Your task to perform on an android device: toggle notification dots Image 0: 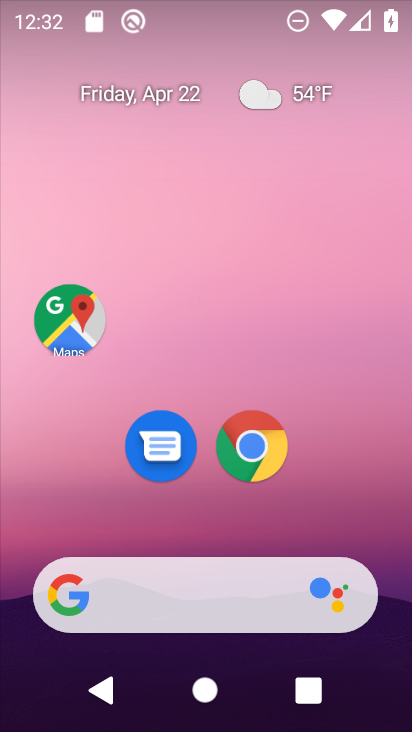
Step 0: drag from (382, 528) to (343, 168)
Your task to perform on an android device: toggle notification dots Image 1: 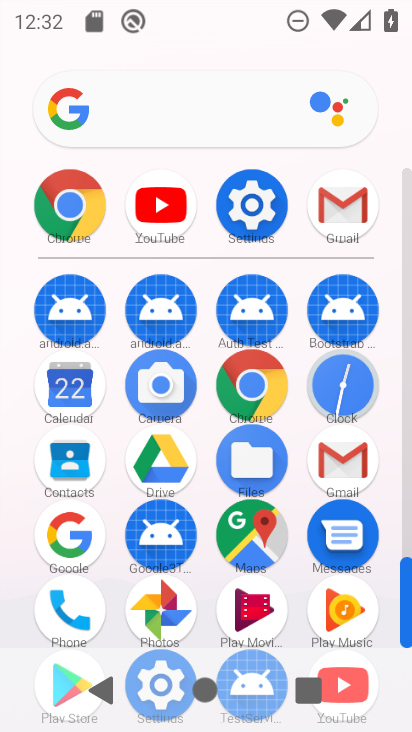
Step 1: click (258, 203)
Your task to perform on an android device: toggle notification dots Image 2: 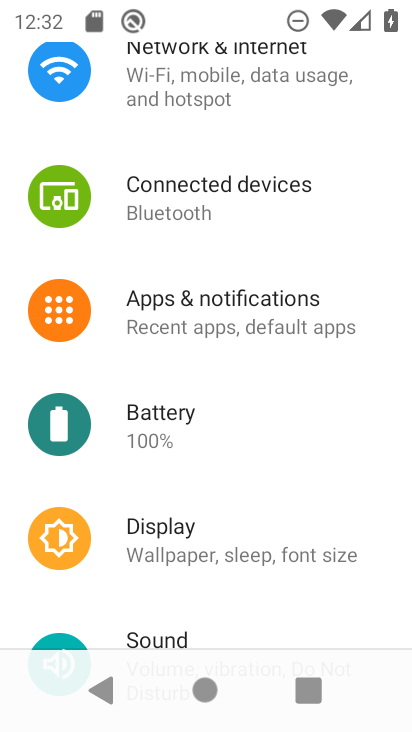
Step 2: click (278, 322)
Your task to perform on an android device: toggle notification dots Image 3: 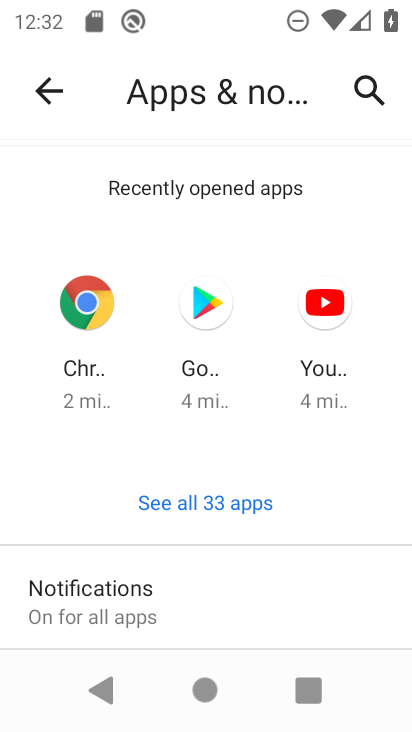
Step 3: drag from (295, 600) to (261, 285)
Your task to perform on an android device: toggle notification dots Image 4: 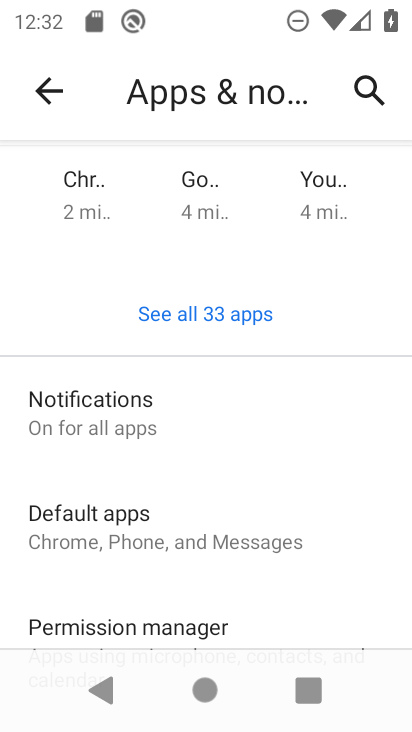
Step 4: click (268, 416)
Your task to perform on an android device: toggle notification dots Image 5: 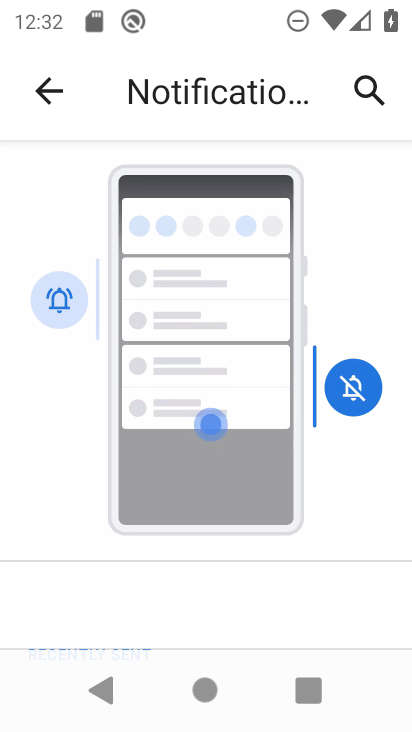
Step 5: drag from (262, 506) to (249, 91)
Your task to perform on an android device: toggle notification dots Image 6: 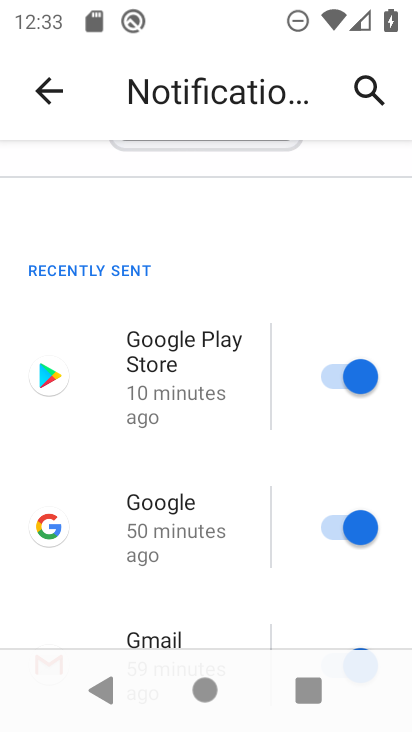
Step 6: drag from (231, 565) to (199, 317)
Your task to perform on an android device: toggle notification dots Image 7: 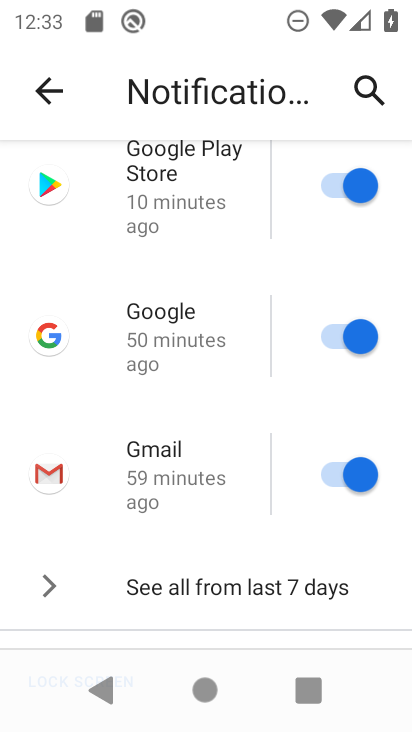
Step 7: drag from (251, 527) to (252, 302)
Your task to perform on an android device: toggle notification dots Image 8: 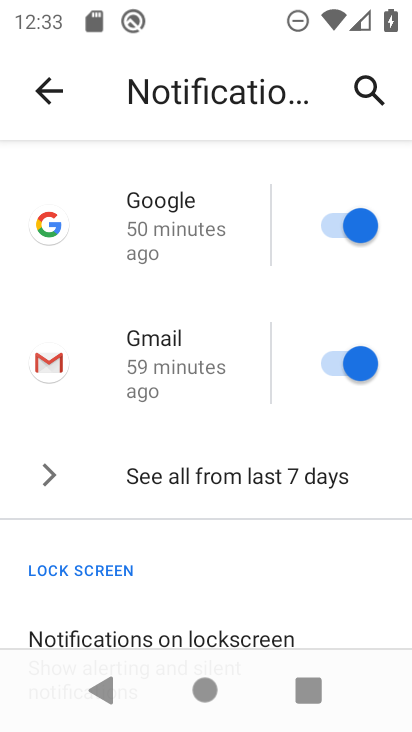
Step 8: drag from (244, 626) to (208, 323)
Your task to perform on an android device: toggle notification dots Image 9: 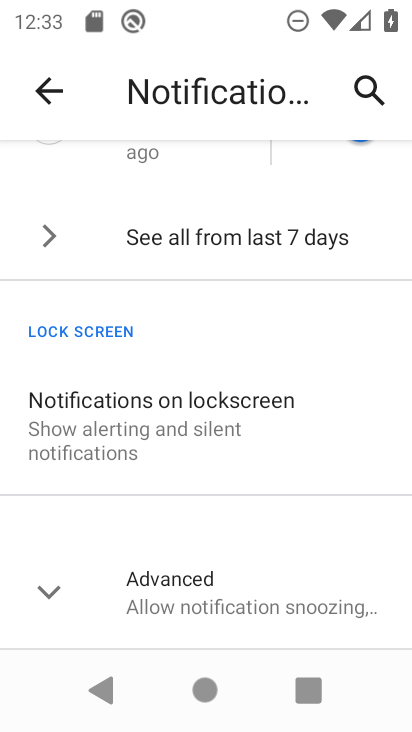
Step 9: click (247, 573)
Your task to perform on an android device: toggle notification dots Image 10: 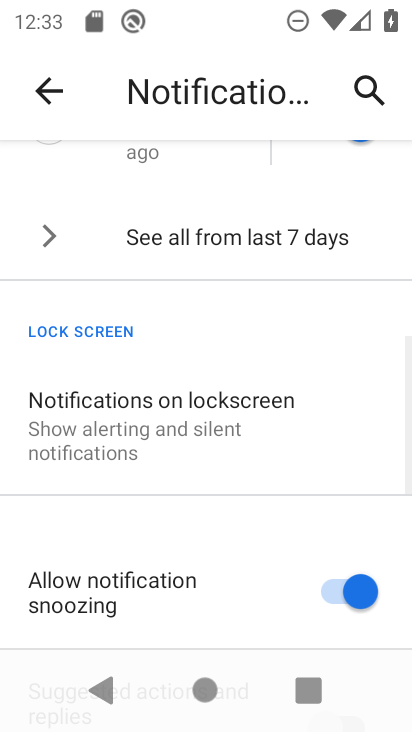
Step 10: drag from (242, 527) to (206, 133)
Your task to perform on an android device: toggle notification dots Image 11: 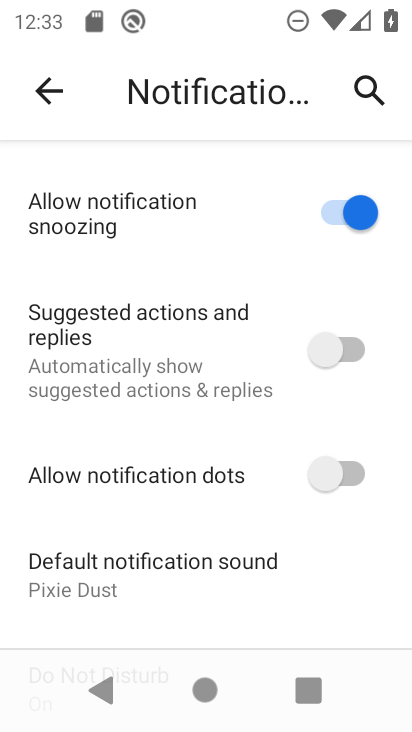
Step 11: click (336, 474)
Your task to perform on an android device: toggle notification dots Image 12: 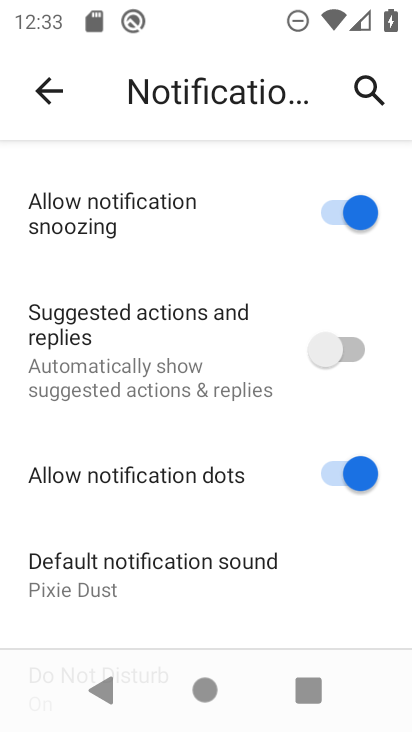
Step 12: task complete